Your task to perform on an android device: turn on the 24-hour format for clock Image 0: 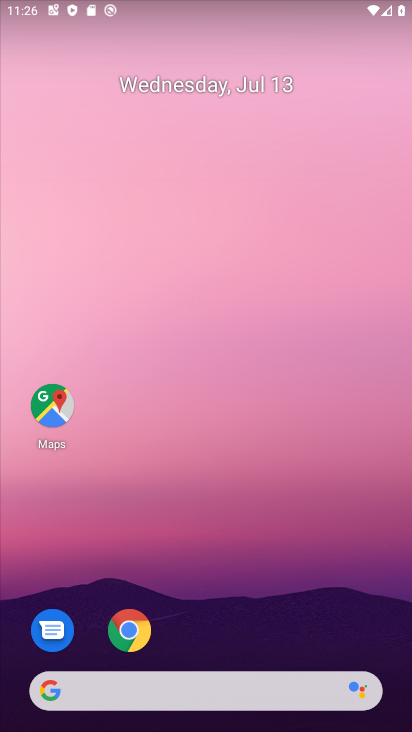
Step 0: drag from (333, 606) to (350, 60)
Your task to perform on an android device: turn on the 24-hour format for clock Image 1: 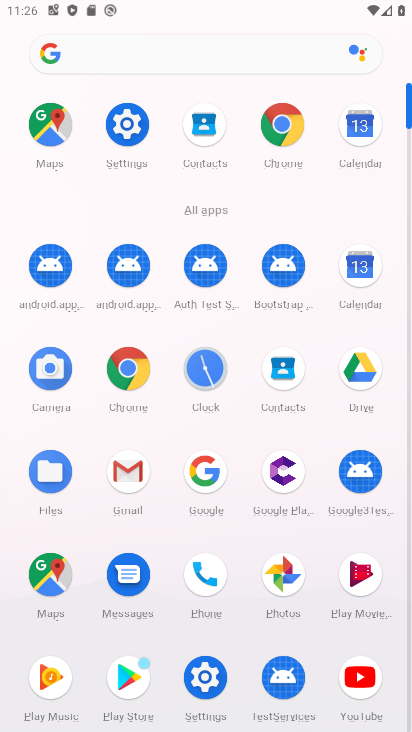
Step 1: click (208, 371)
Your task to perform on an android device: turn on the 24-hour format for clock Image 2: 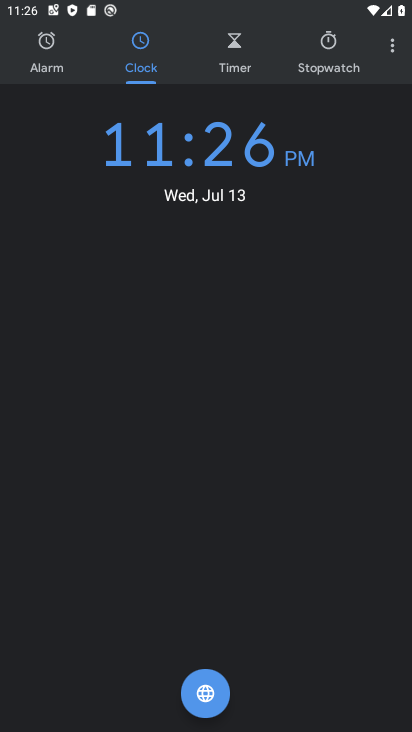
Step 2: click (391, 53)
Your task to perform on an android device: turn on the 24-hour format for clock Image 3: 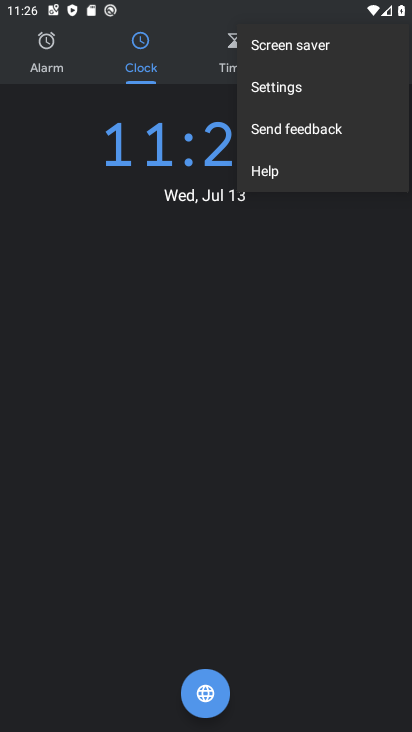
Step 3: click (306, 97)
Your task to perform on an android device: turn on the 24-hour format for clock Image 4: 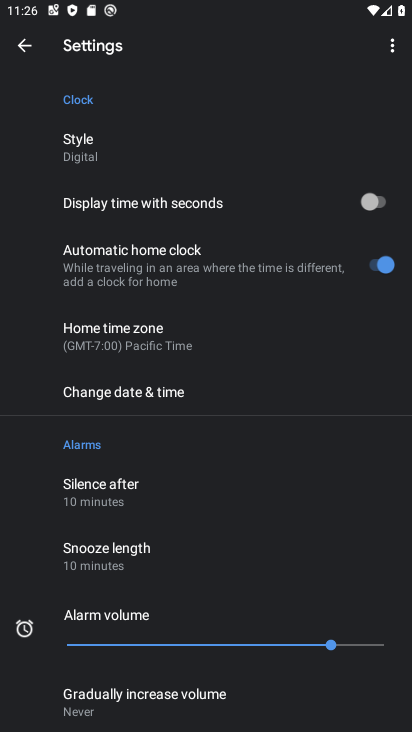
Step 4: drag from (285, 482) to (282, 328)
Your task to perform on an android device: turn on the 24-hour format for clock Image 5: 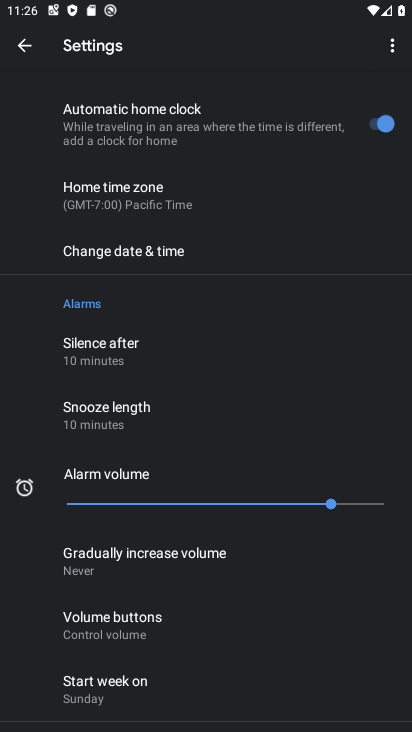
Step 5: drag from (276, 576) to (258, 422)
Your task to perform on an android device: turn on the 24-hour format for clock Image 6: 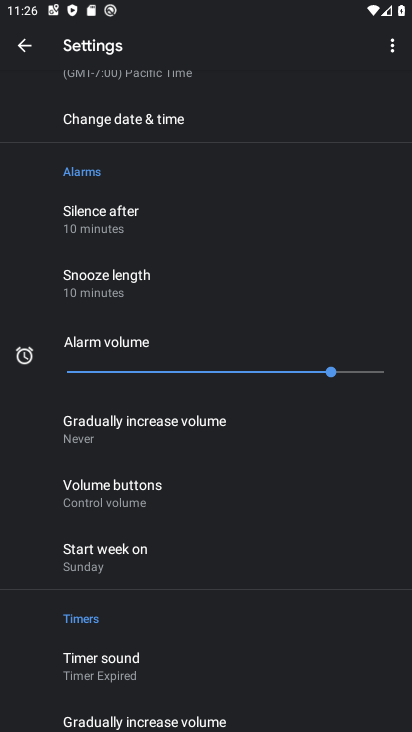
Step 6: drag from (279, 564) to (283, 349)
Your task to perform on an android device: turn on the 24-hour format for clock Image 7: 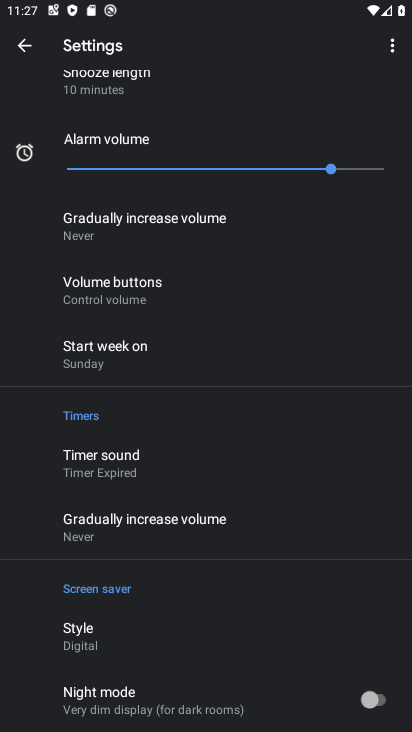
Step 7: drag from (296, 588) to (297, 360)
Your task to perform on an android device: turn on the 24-hour format for clock Image 8: 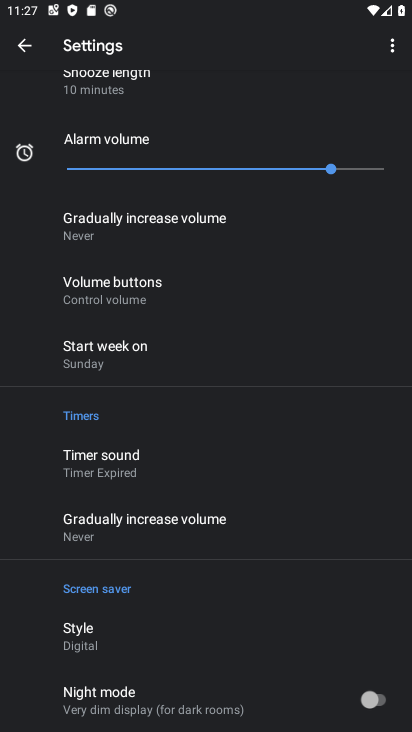
Step 8: drag from (286, 340) to (330, 578)
Your task to perform on an android device: turn on the 24-hour format for clock Image 9: 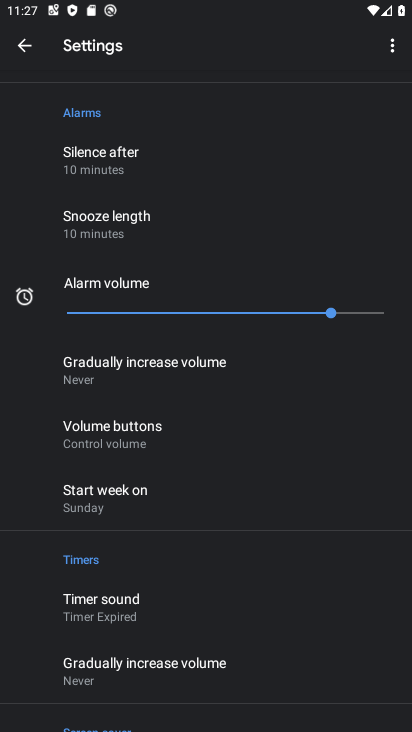
Step 9: drag from (272, 257) to (283, 472)
Your task to perform on an android device: turn on the 24-hour format for clock Image 10: 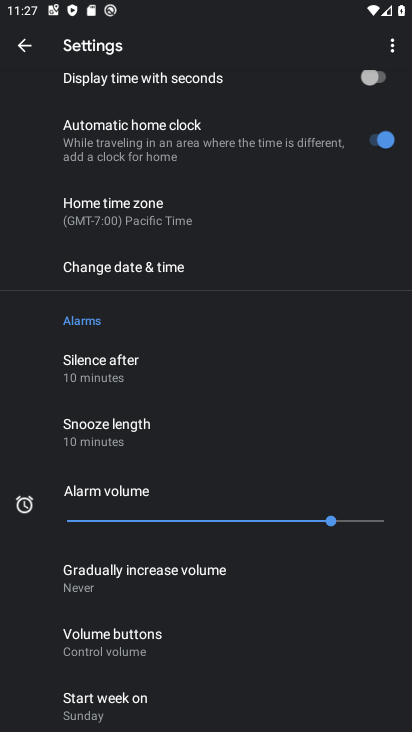
Step 10: drag from (253, 219) to (278, 460)
Your task to perform on an android device: turn on the 24-hour format for clock Image 11: 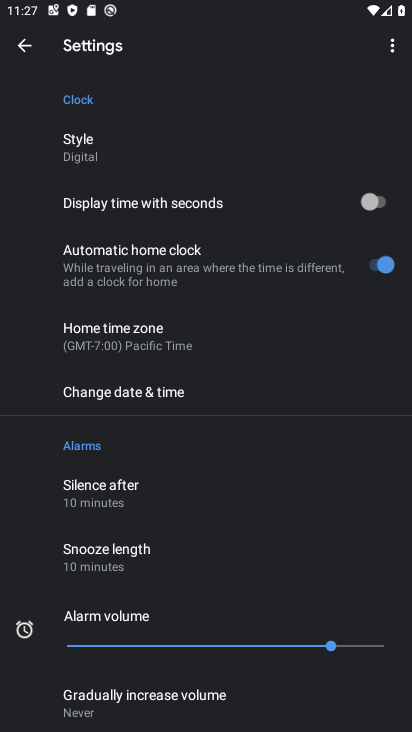
Step 11: click (195, 390)
Your task to perform on an android device: turn on the 24-hour format for clock Image 12: 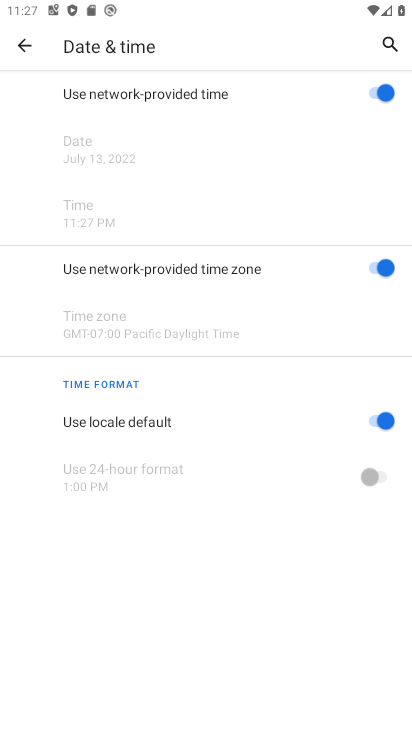
Step 12: click (387, 416)
Your task to perform on an android device: turn on the 24-hour format for clock Image 13: 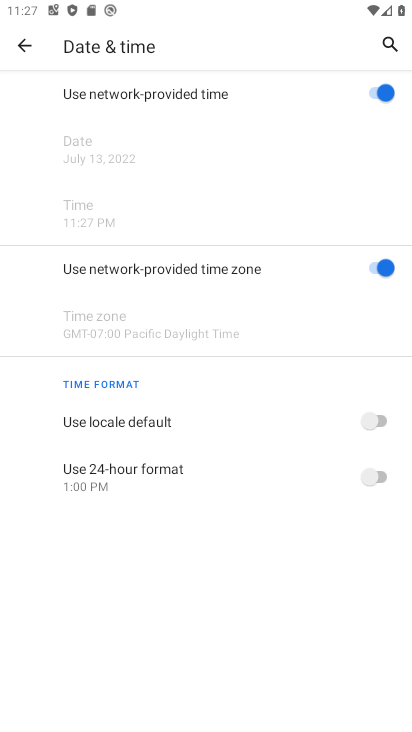
Step 13: click (367, 480)
Your task to perform on an android device: turn on the 24-hour format for clock Image 14: 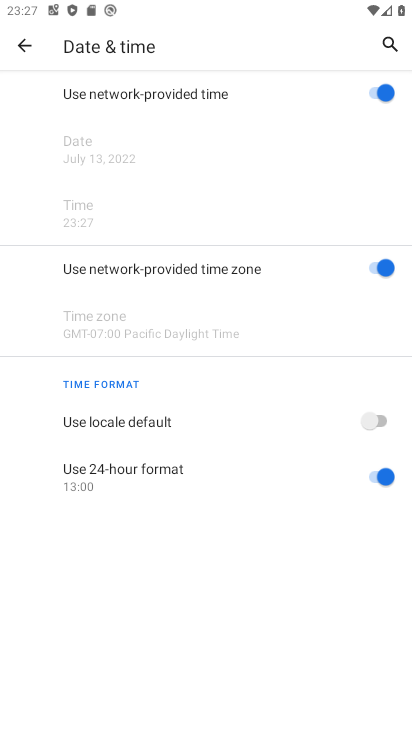
Step 14: task complete